Your task to perform on an android device: turn notification dots off Image 0: 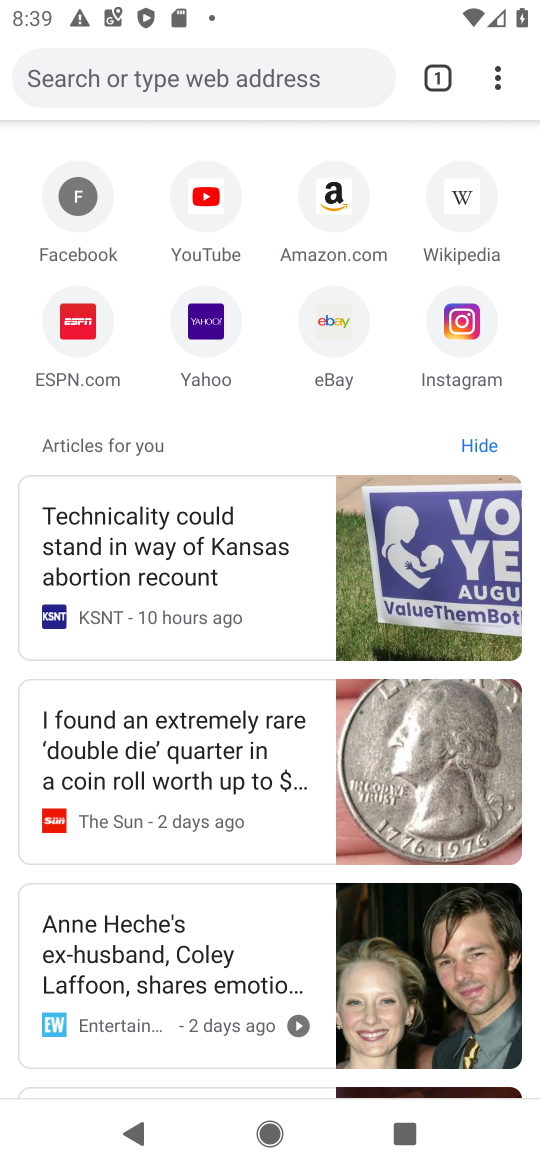
Step 0: press home button
Your task to perform on an android device: turn notification dots off Image 1: 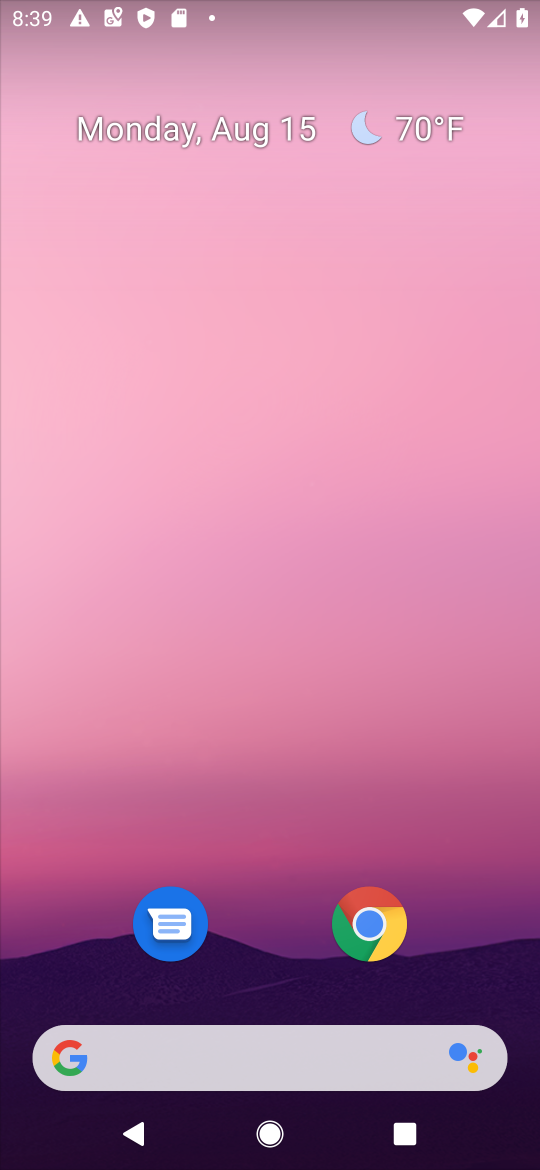
Step 1: drag from (500, 993) to (455, 206)
Your task to perform on an android device: turn notification dots off Image 2: 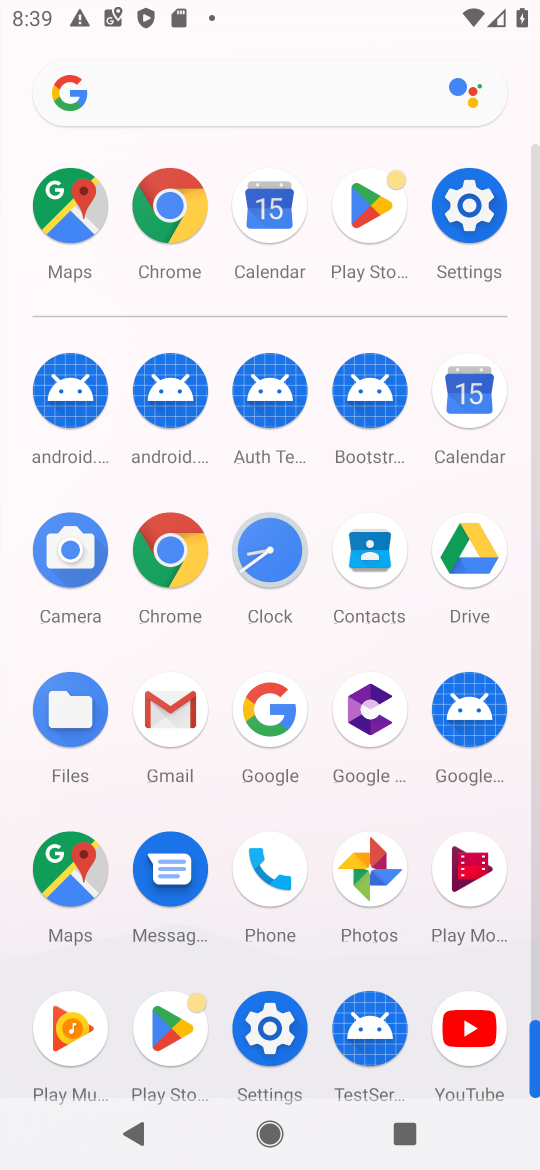
Step 2: click (272, 1027)
Your task to perform on an android device: turn notification dots off Image 3: 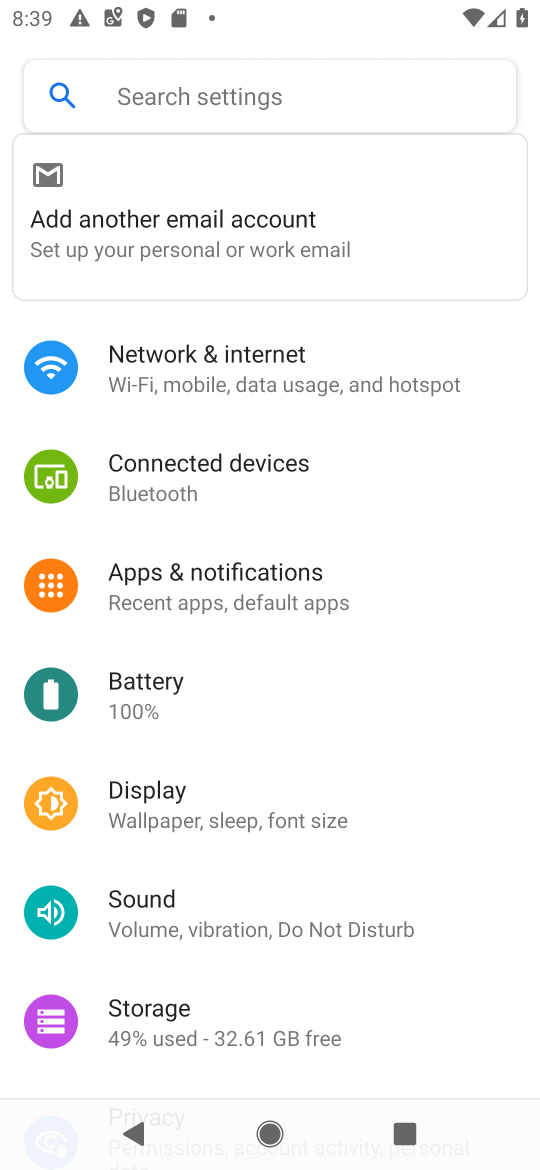
Step 3: click (198, 578)
Your task to perform on an android device: turn notification dots off Image 4: 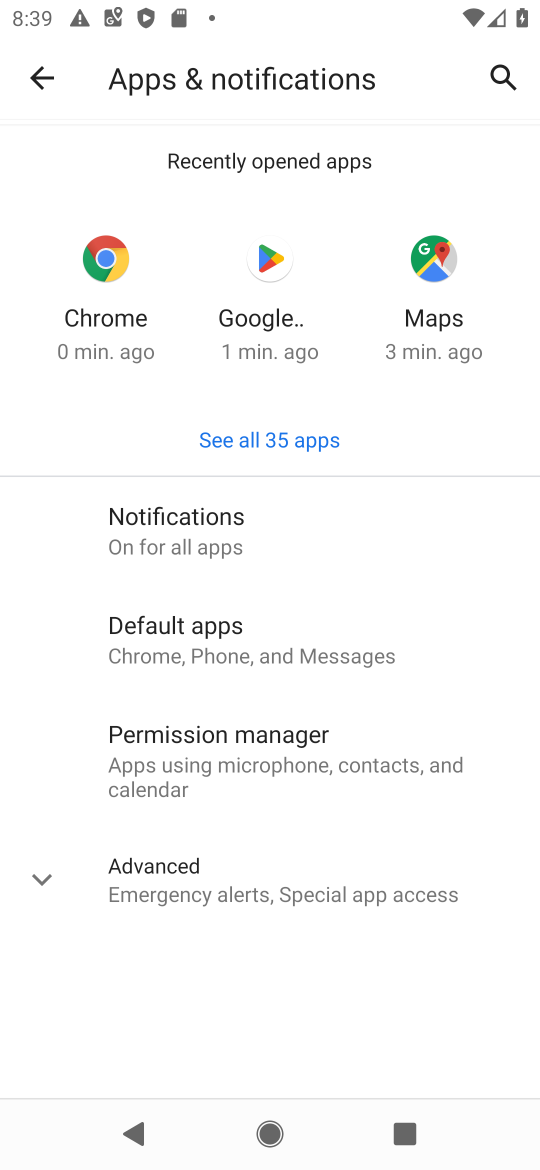
Step 4: click (175, 533)
Your task to perform on an android device: turn notification dots off Image 5: 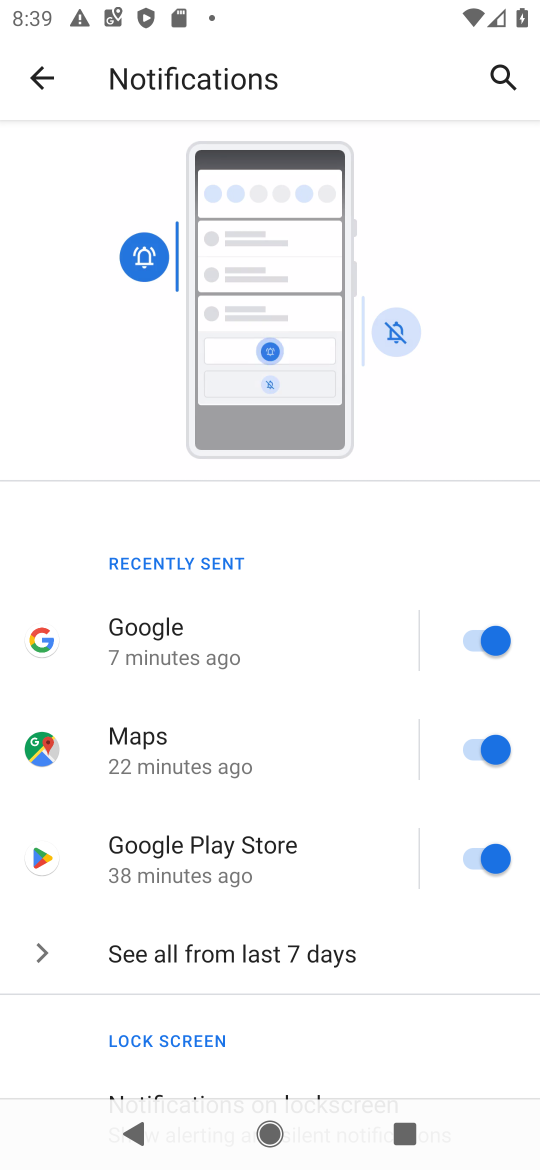
Step 5: drag from (392, 982) to (474, 346)
Your task to perform on an android device: turn notification dots off Image 6: 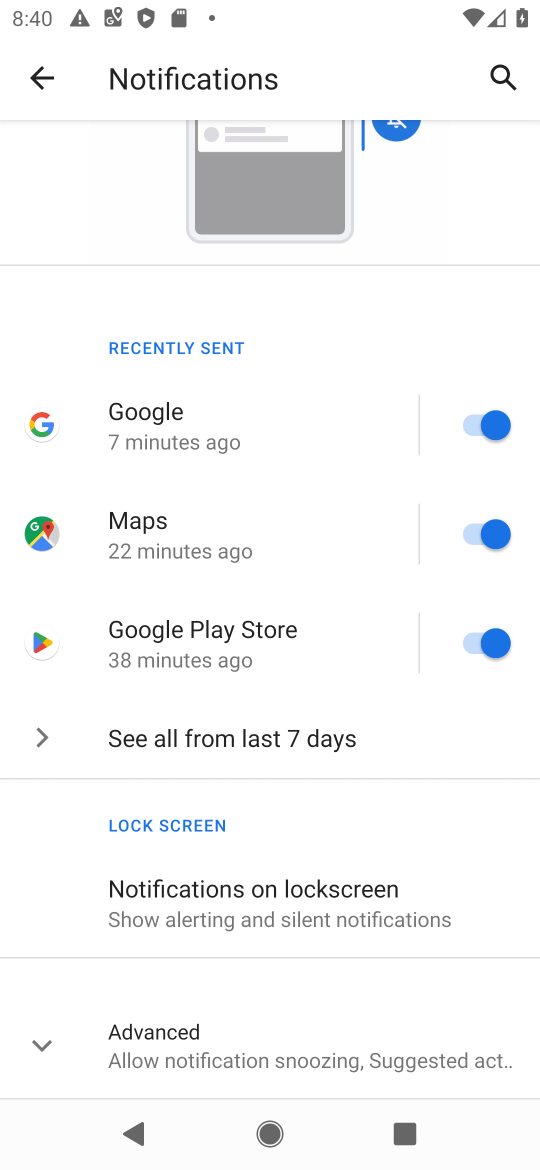
Step 6: click (40, 1047)
Your task to perform on an android device: turn notification dots off Image 7: 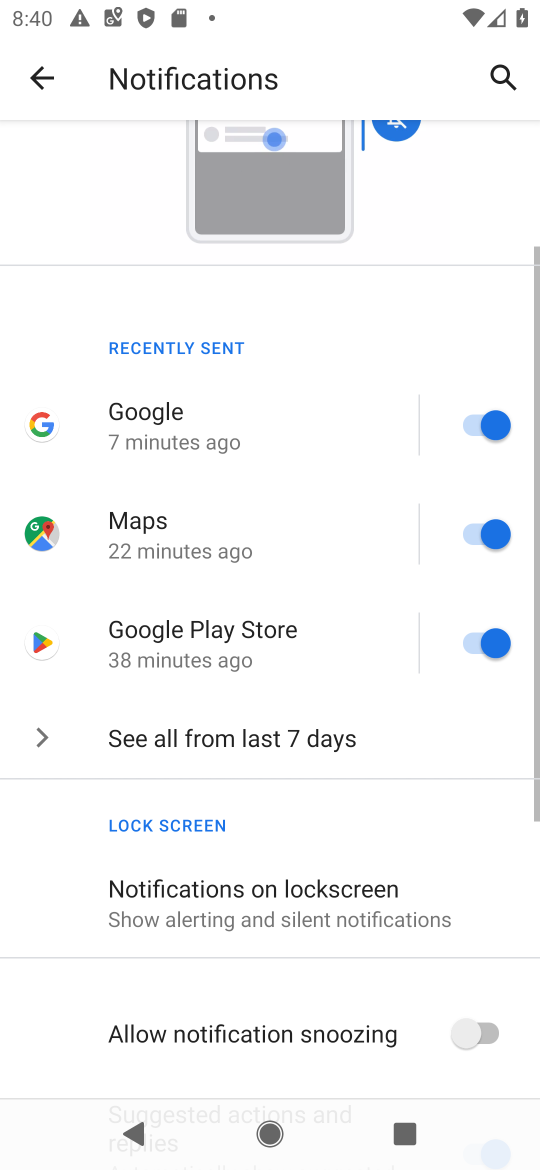
Step 7: drag from (412, 1029) to (413, 380)
Your task to perform on an android device: turn notification dots off Image 8: 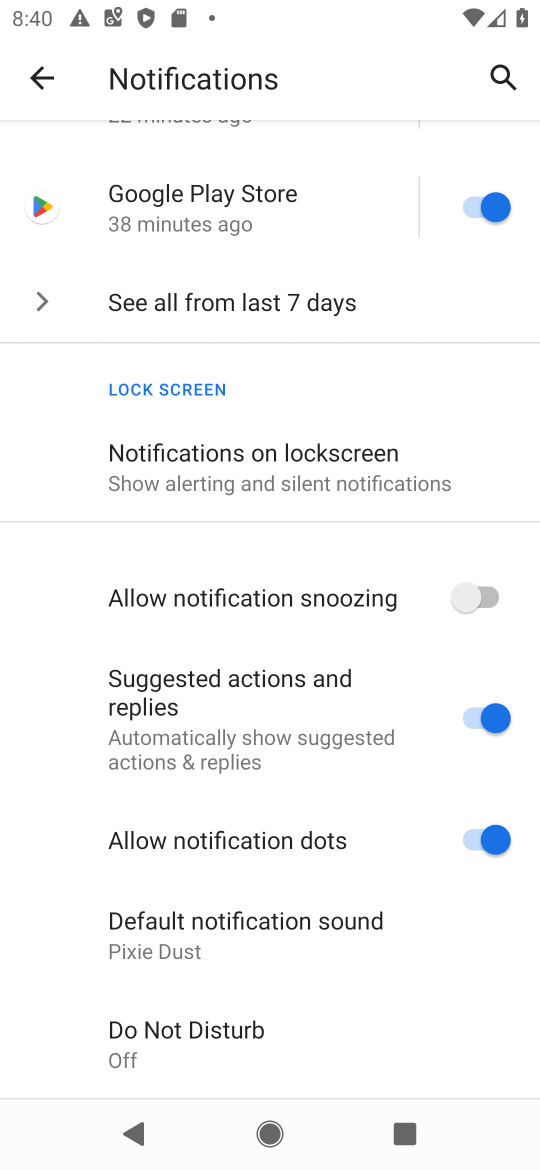
Step 8: click (466, 837)
Your task to perform on an android device: turn notification dots off Image 9: 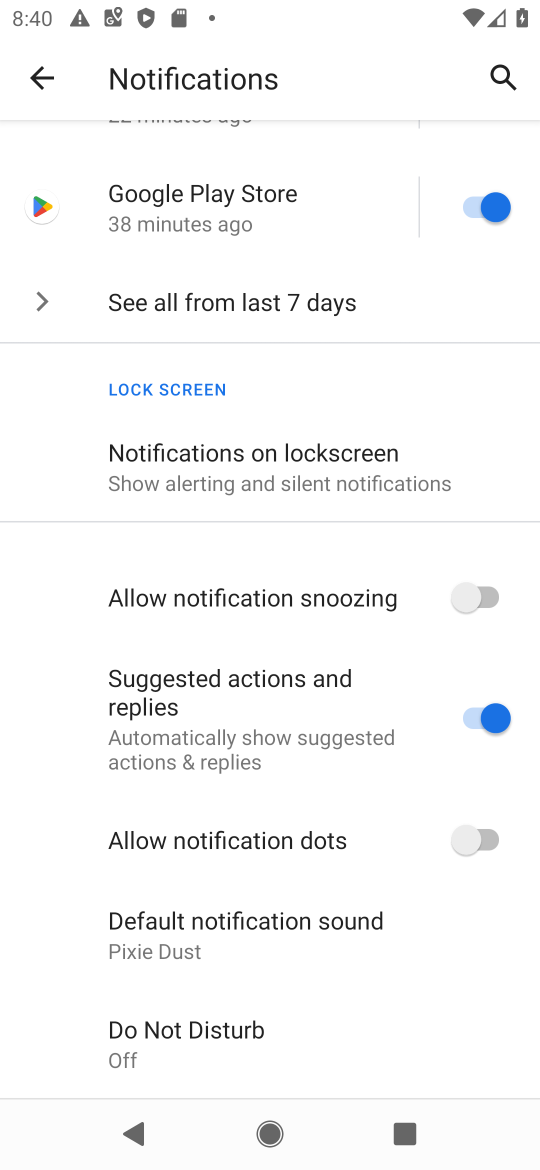
Step 9: task complete